Your task to perform on an android device: Search for Mexican restaurants on Maps Image 0: 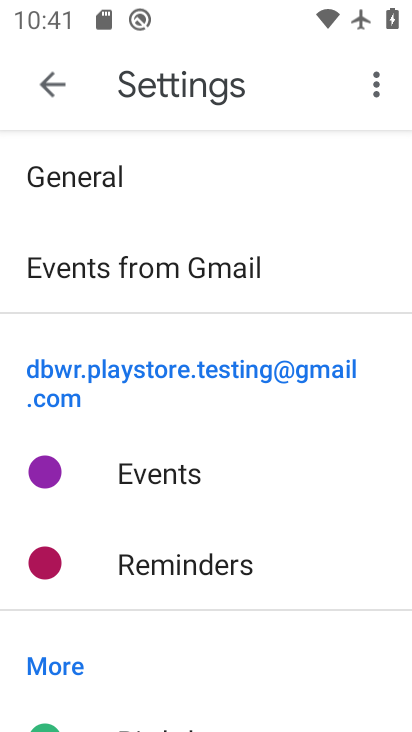
Step 0: press home button
Your task to perform on an android device: Search for Mexican restaurants on Maps Image 1: 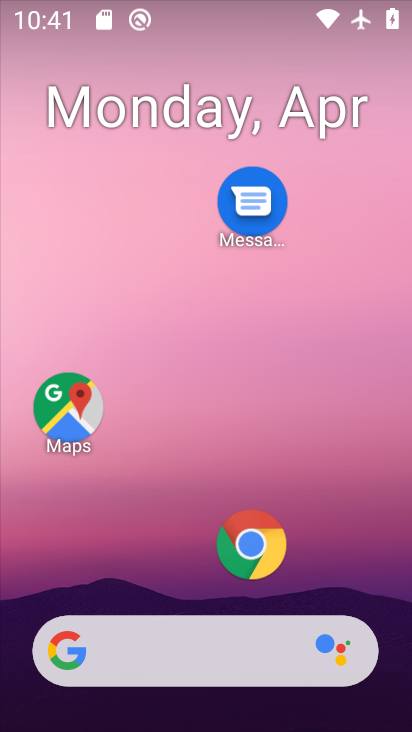
Step 1: click (70, 403)
Your task to perform on an android device: Search for Mexican restaurants on Maps Image 2: 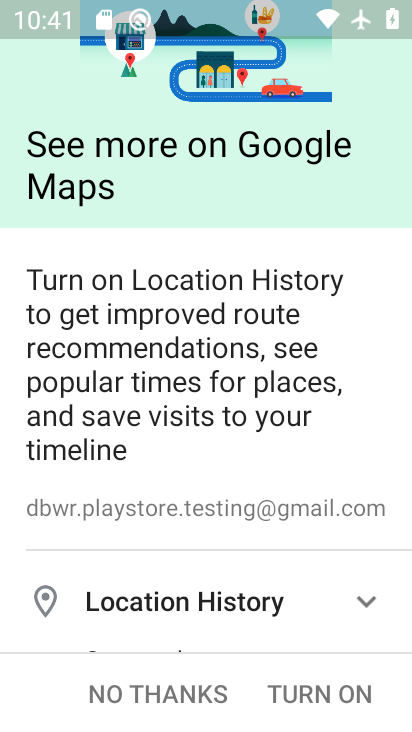
Step 2: click (161, 692)
Your task to perform on an android device: Search for Mexican restaurants on Maps Image 3: 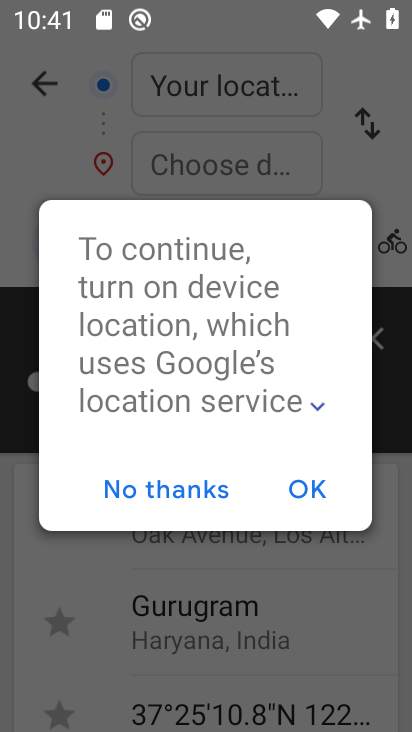
Step 3: click (306, 488)
Your task to perform on an android device: Search for Mexican restaurants on Maps Image 4: 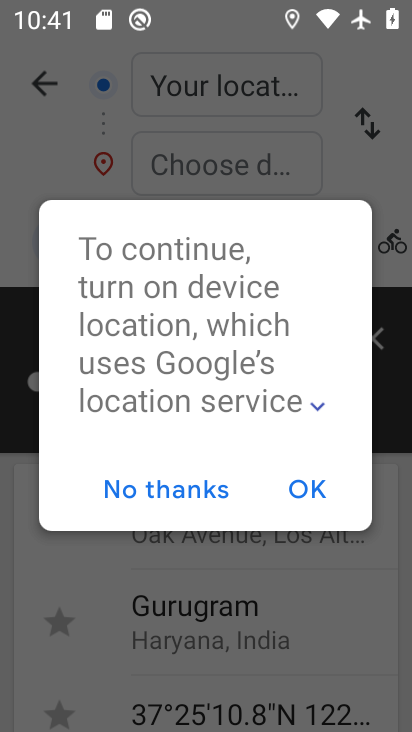
Step 4: click (298, 486)
Your task to perform on an android device: Search for Mexican restaurants on Maps Image 5: 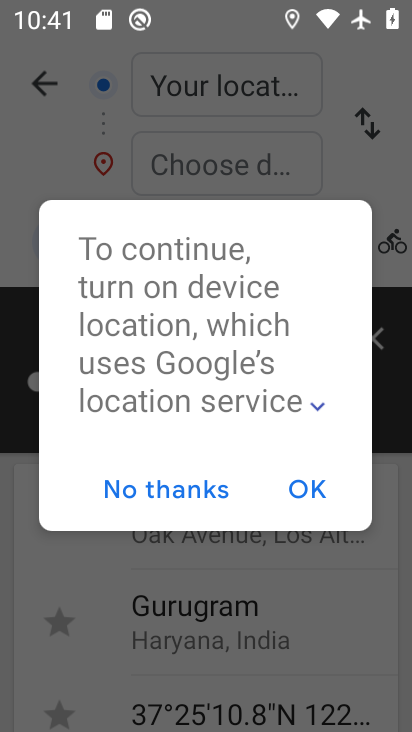
Step 5: click (310, 488)
Your task to perform on an android device: Search for Mexican restaurants on Maps Image 6: 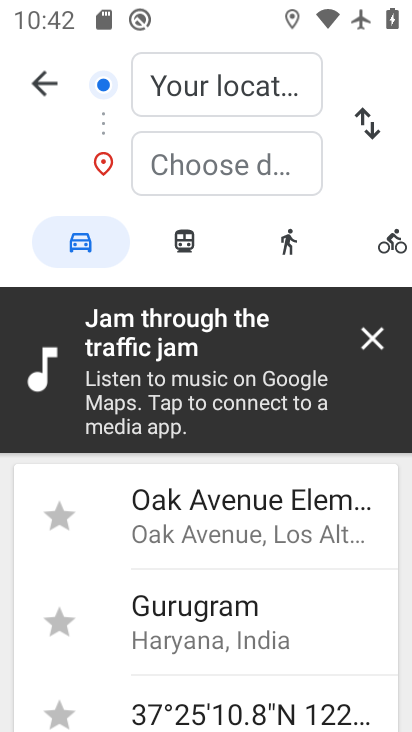
Step 6: click (52, 92)
Your task to perform on an android device: Search for Mexican restaurants on Maps Image 7: 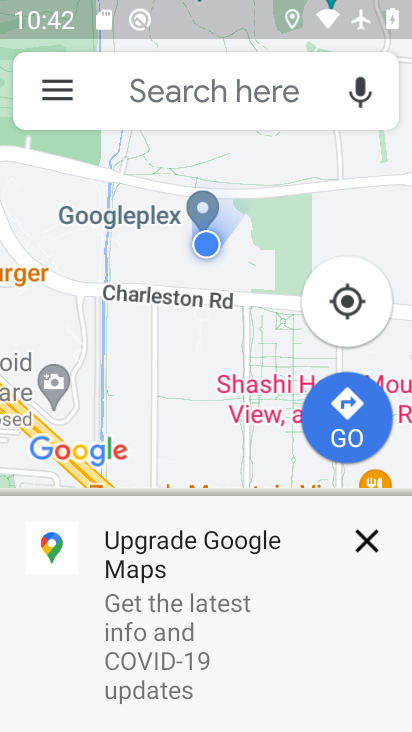
Step 7: click (171, 88)
Your task to perform on an android device: Search for Mexican restaurants on Maps Image 8: 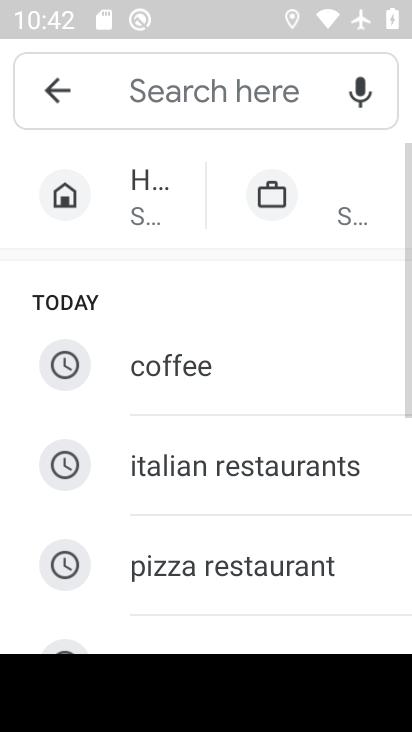
Step 8: drag from (220, 534) to (263, 282)
Your task to perform on an android device: Search for Mexican restaurants on Maps Image 9: 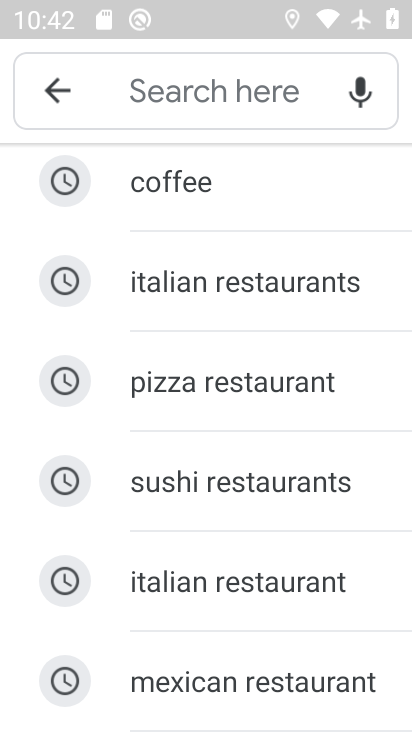
Step 9: click (179, 680)
Your task to perform on an android device: Search for Mexican restaurants on Maps Image 10: 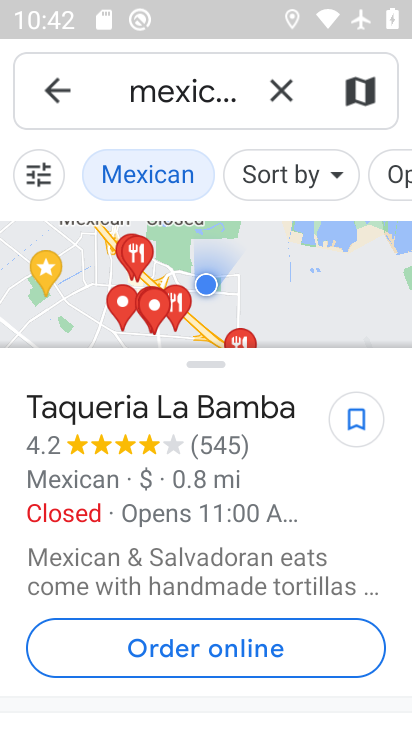
Step 10: task complete